Your task to perform on an android device: toggle data saver in the chrome app Image 0: 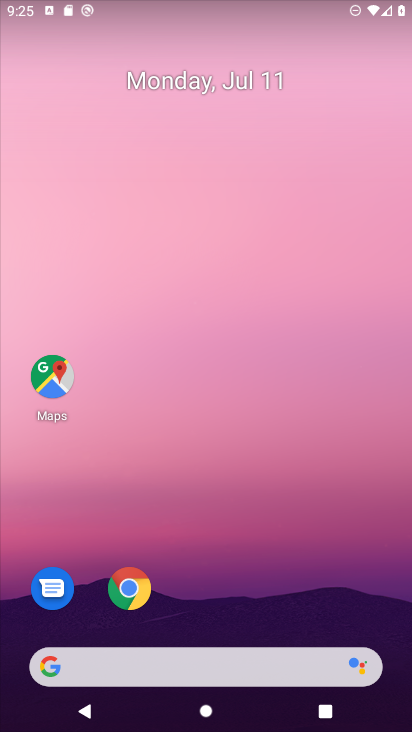
Step 0: drag from (388, 621) to (290, 112)
Your task to perform on an android device: toggle data saver in the chrome app Image 1: 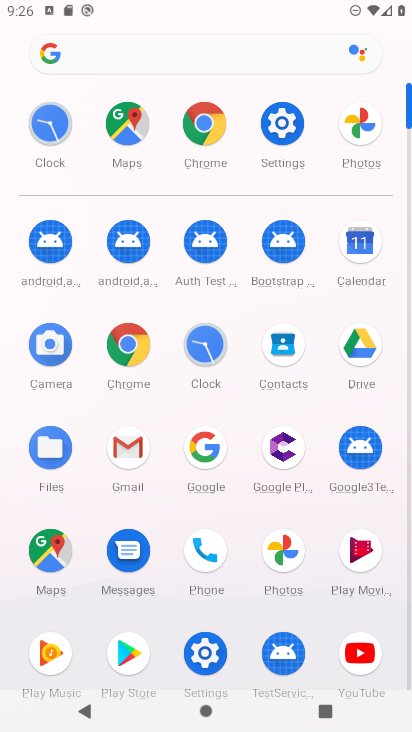
Step 1: click (212, 128)
Your task to perform on an android device: toggle data saver in the chrome app Image 2: 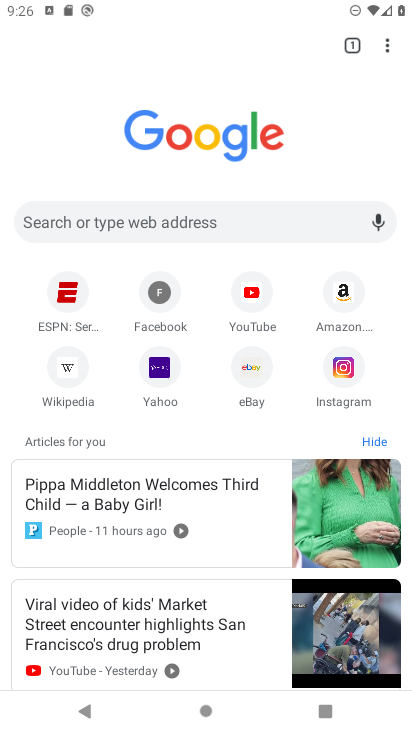
Step 2: click (385, 39)
Your task to perform on an android device: toggle data saver in the chrome app Image 3: 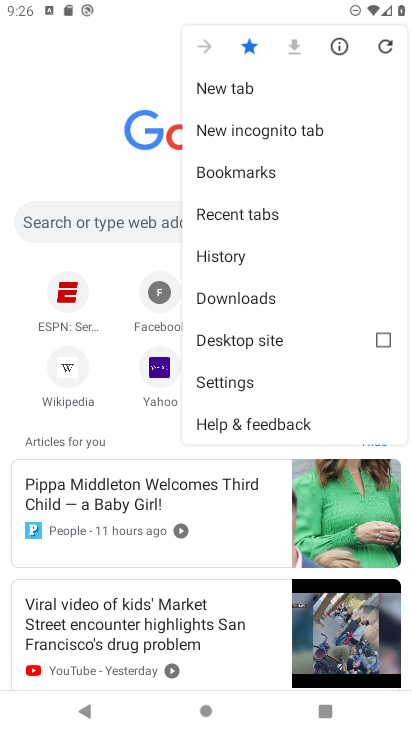
Step 3: click (272, 379)
Your task to perform on an android device: toggle data saver in the chrome app Image 4: 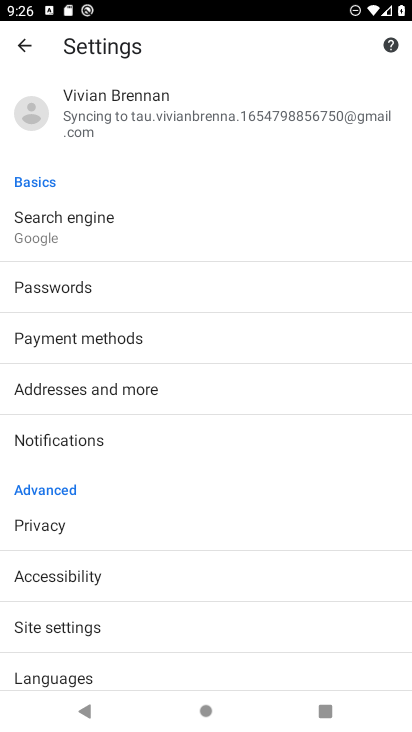
Step 4: drag from (118, 649) to (125, 146)
Your task to perform on an android device: toggle data saver in the chrome app Image 5: 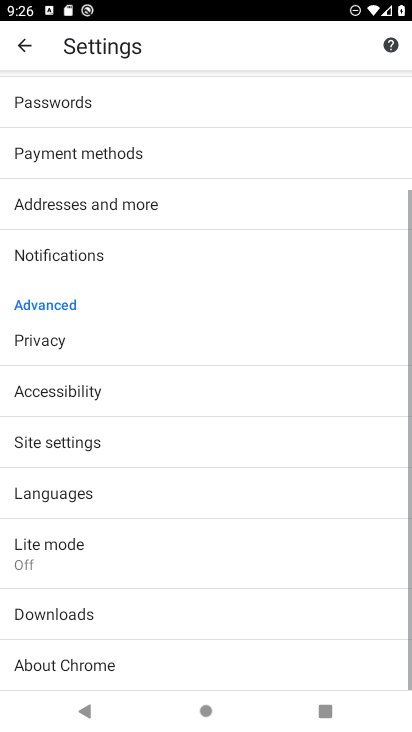
Step 5: click (47, 542)
Your task to perform on an android device: toggle data saver in the chrome app Image 6: 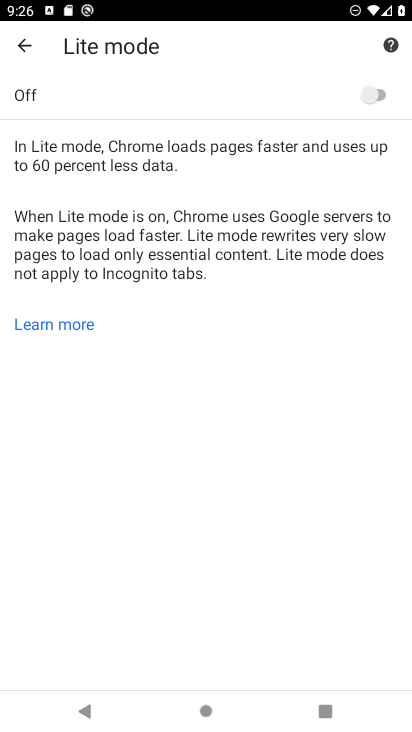
Step 6: click (359, 100)
Your task to perform on an android device: toggle data saver in the chrome app Image 7: 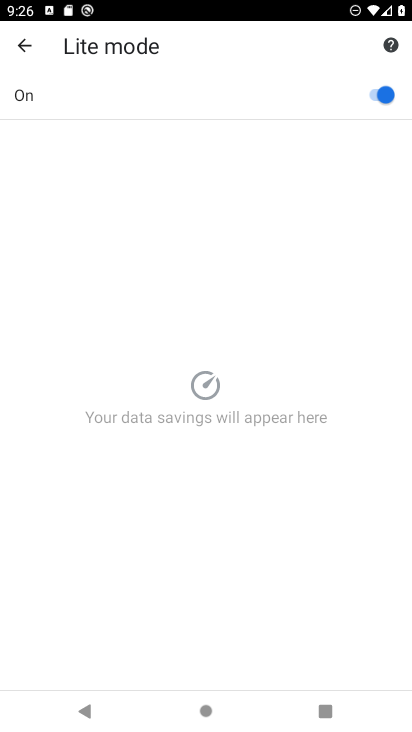
Step 7: task complete